Your task to perform on an android device: turn on improve location accuracy Image 0: 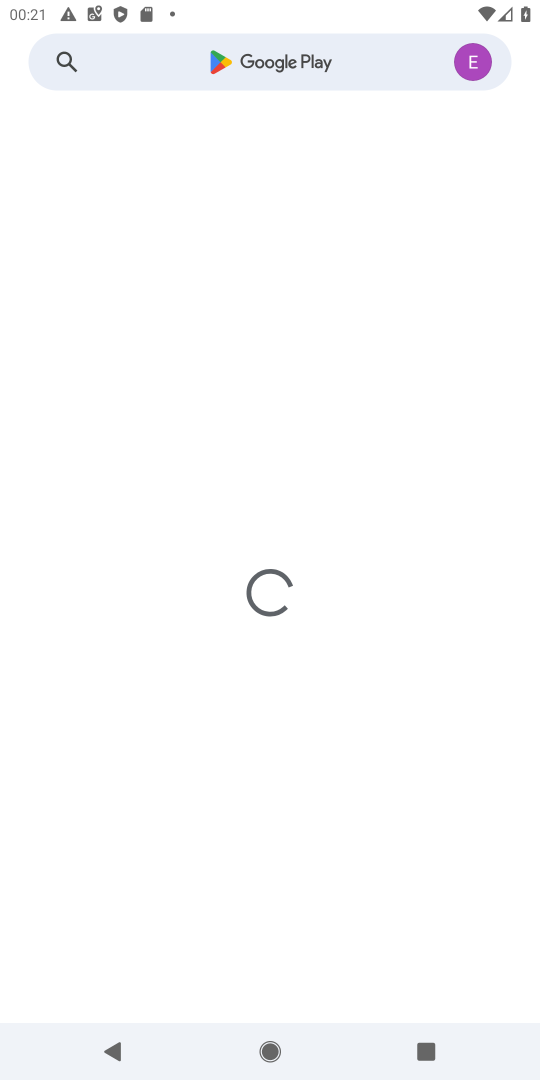
Step 0: press home button
Your task to perform on an android device: turn on improve location accuracy Image 1: 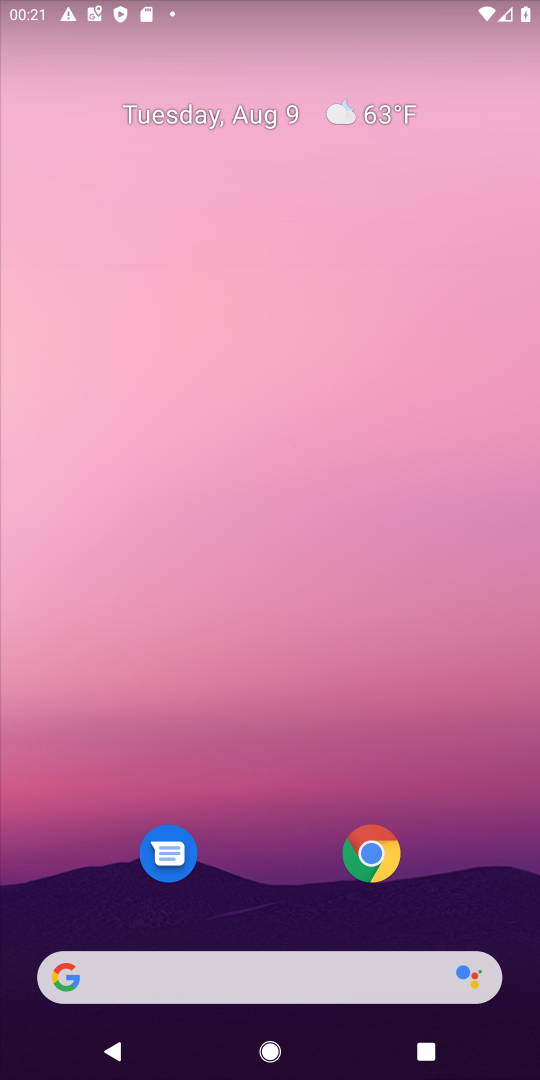
Step 1: drag from (287, 828) to (290, 342)
Your task to perform on an android device: turn on improve location accuracy Image 2: 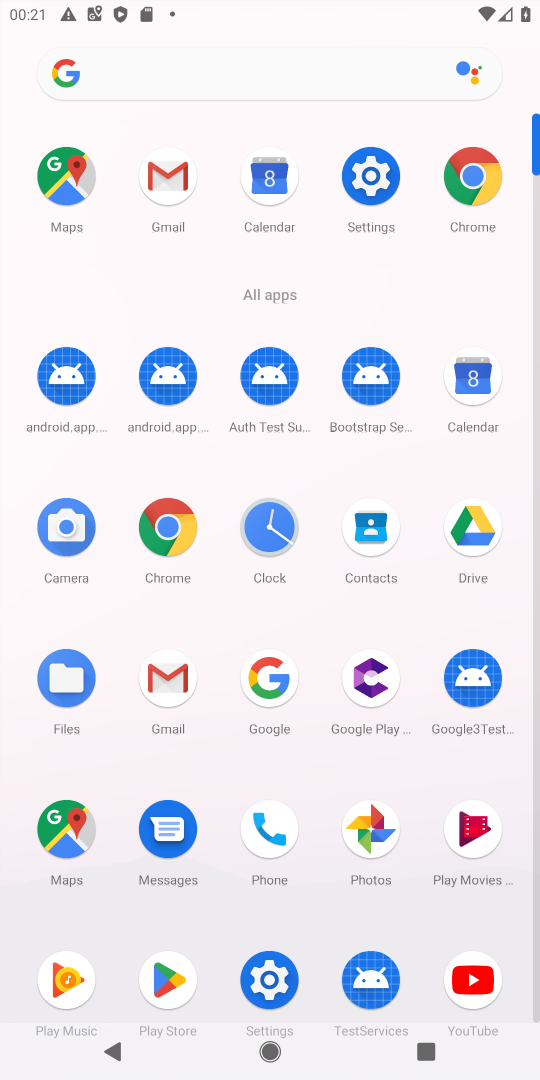
Step 2: click (368, 172)
Your task to perform on an android device: turn on improve location accuracy Image 3: 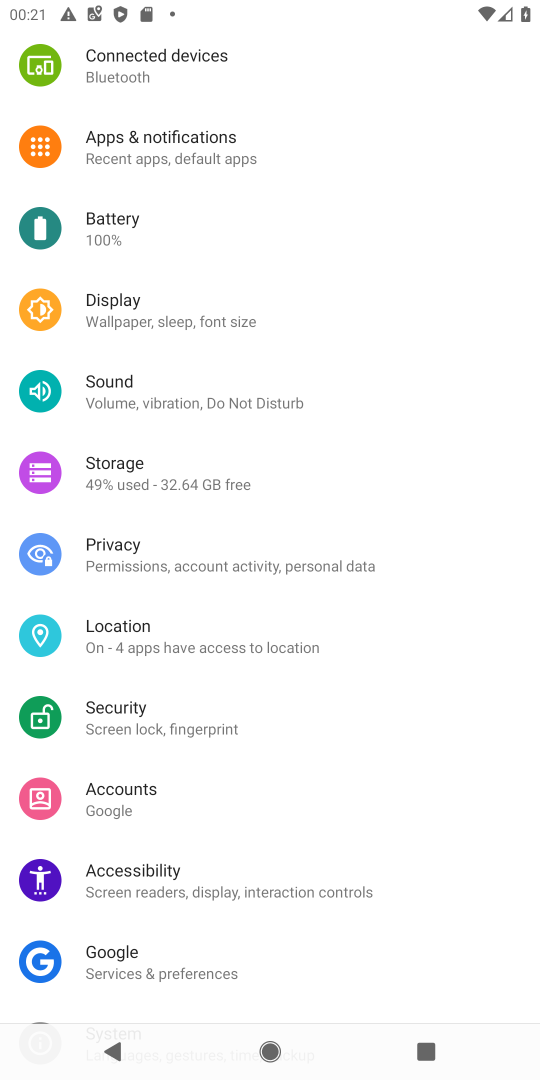
Step 3: click (102, 646)
Your task to perform on an android device: turn on improve location accuracy Image 4: 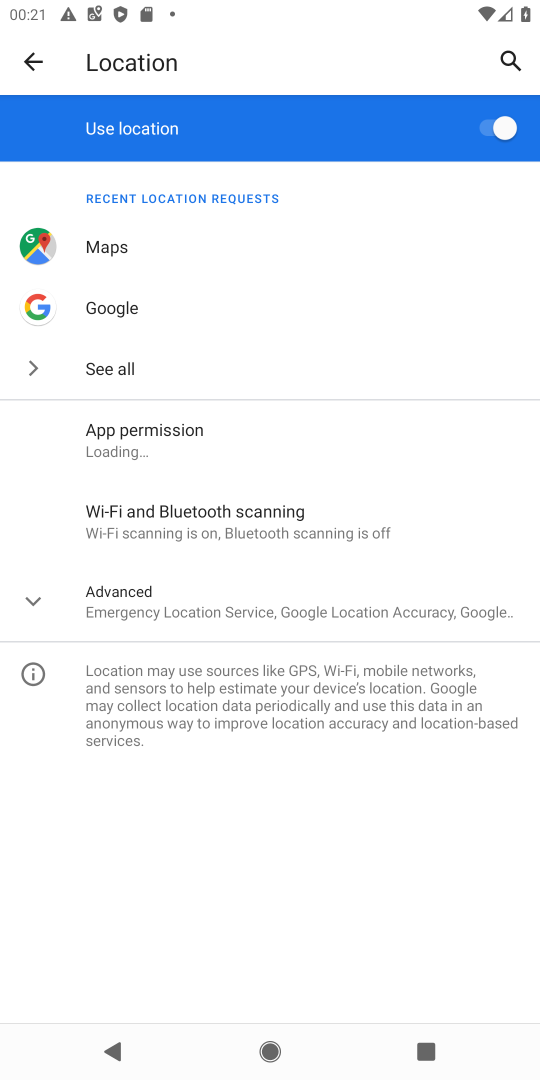
Step 4: click (173, 616)
Your task to perform on an android device: turn on improve location accuracy Image 5: 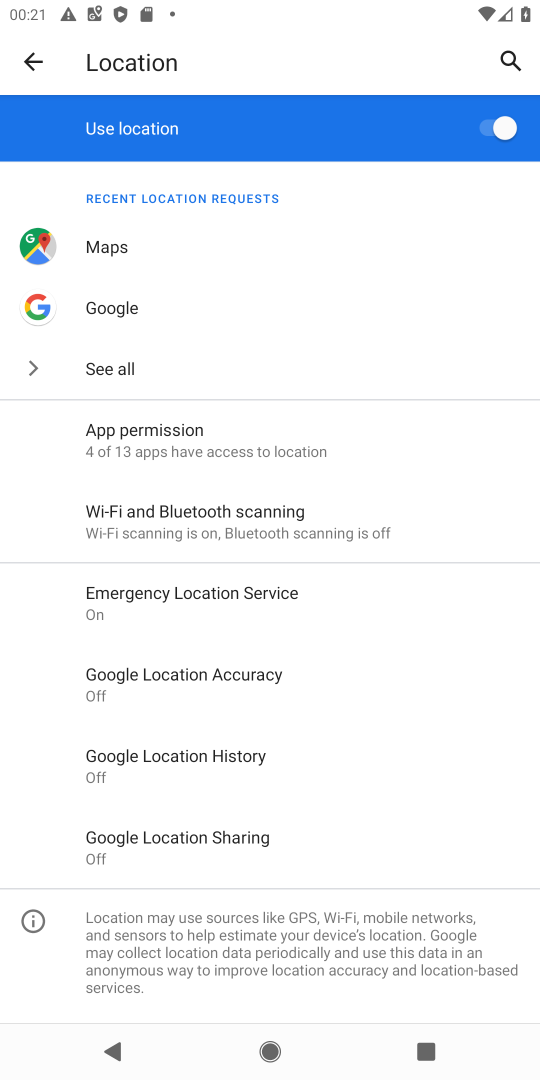
Step 5: click (226, 690)
Your task to perform on an android device: turn on improve location accuracy Image 6: 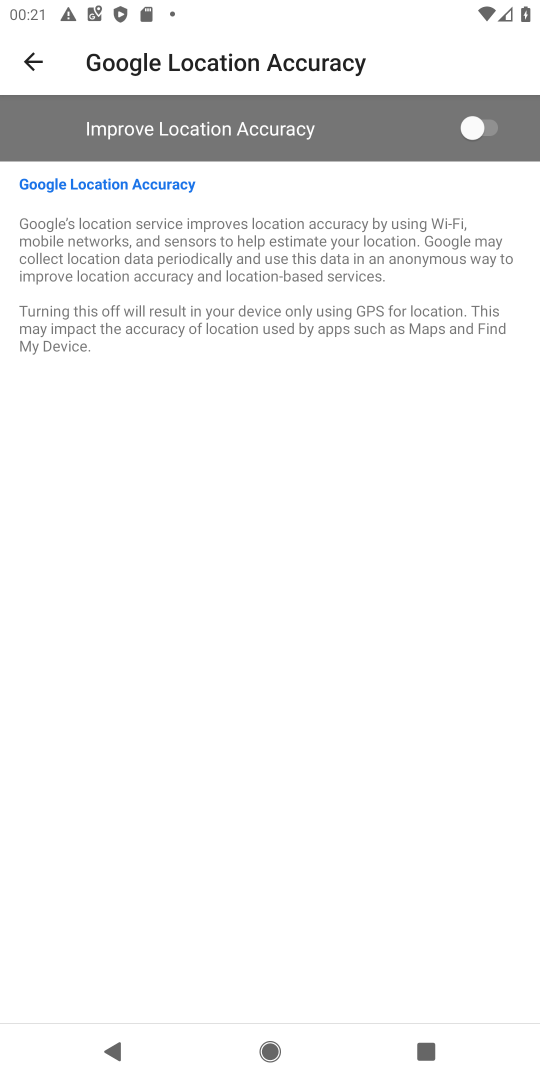
Step 6: click (463, 123)
Your task to perform on an android device: turn on improve location accuracy Image 7: 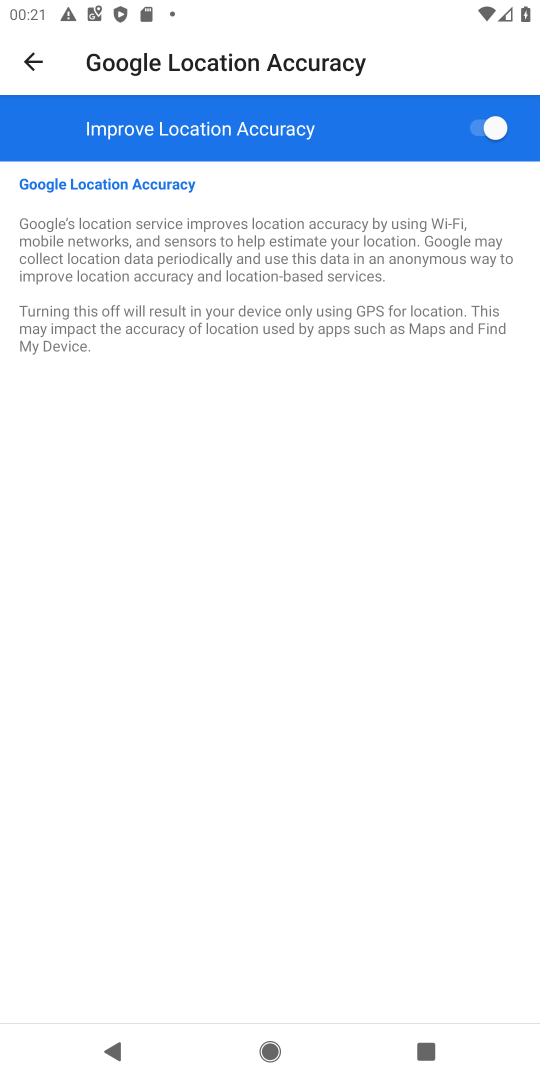
Step 7: task complete